Your task to perform on an android device: Go to location settings Image 0: 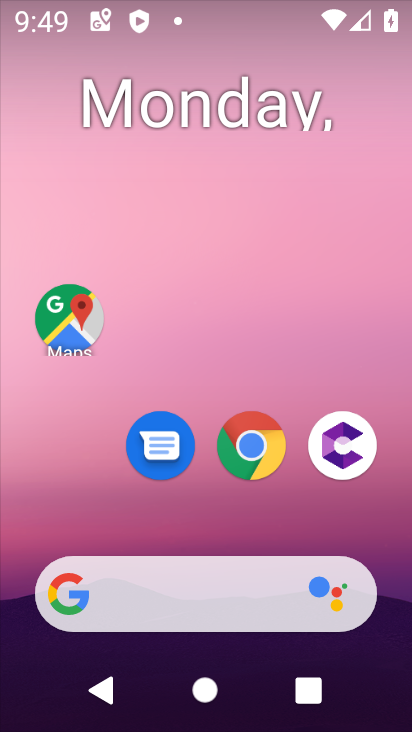
Step 0: press home button
Your task to perform on an android device: Go to location settings Image 1: 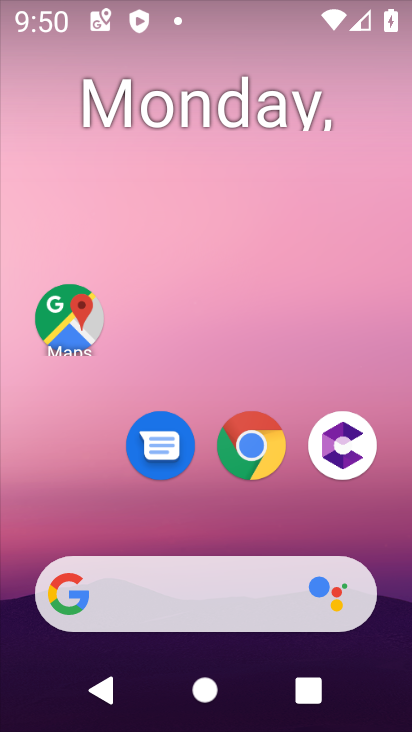
Step 1: drag from (226, 511) to (173, 107)
Your task to perform on an android device: Go to location settings Image 2: 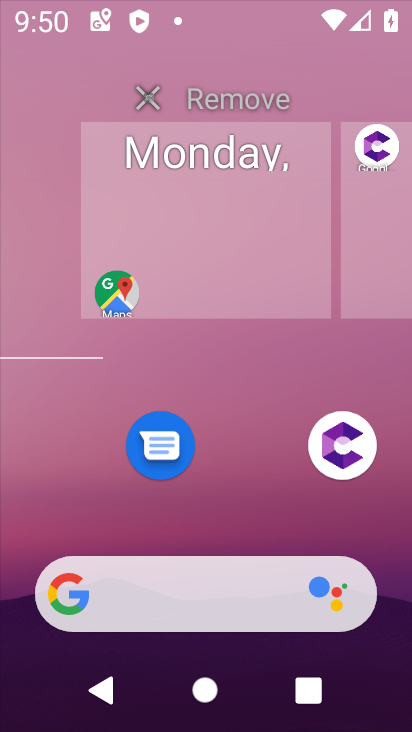
Step 2: click (172, 231)
Your task to perform on an android device: Go to location settings Image 3: 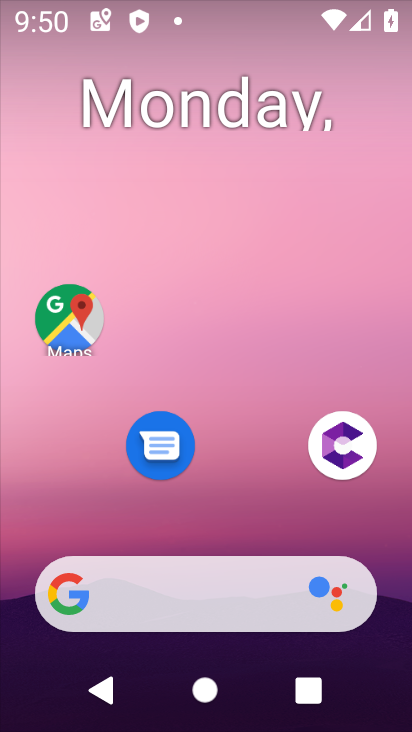
Step 3: drag from (219, 516) to (156, 76)
Your task to perform on an android device: Go to location settings Image 4: 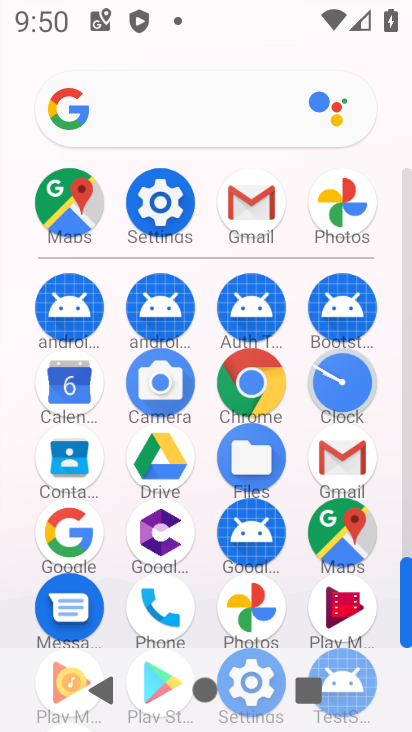
Step 4: click (164, 203)
Your task to perform on an android device: Go to location settings Image 5: 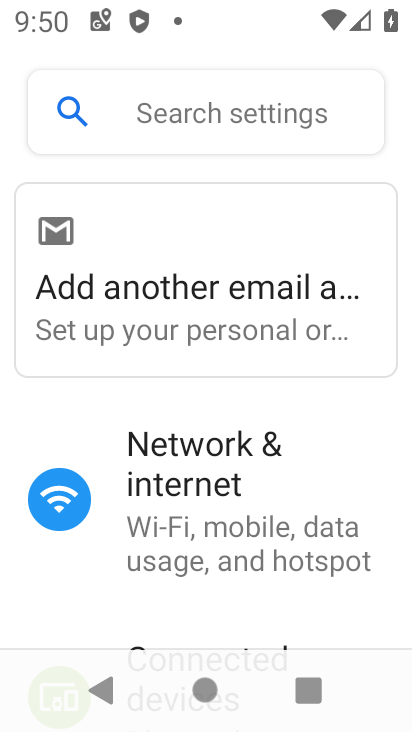
Step 5: drag from (285, 421) to (230, 29)
Your task to perform on an android device: Go to location settings Image 6: 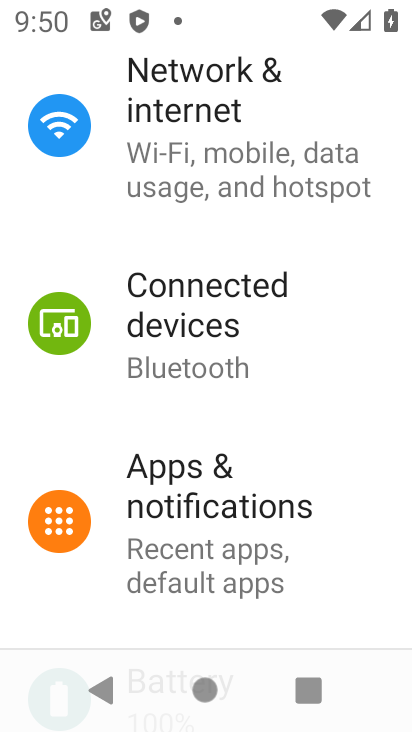
Step 6: drag from (314, 565) to (252, 116)
Your task to perform on an android device: Go to location settings Image 7: 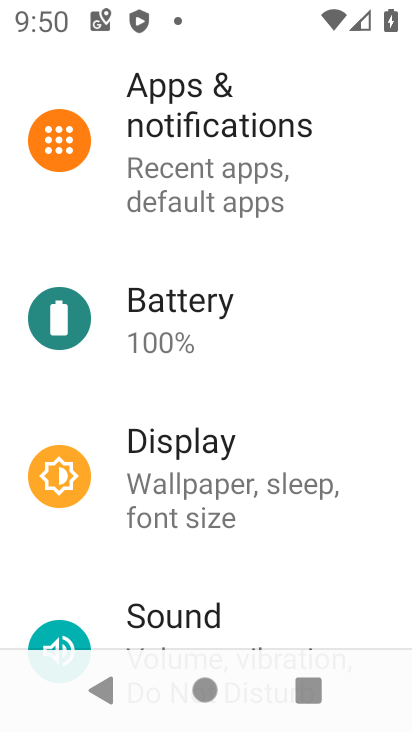
Step 7: drag from (287, 600) to (243, 183)
Your task to perform on an android device: Go to location settings Image 8: 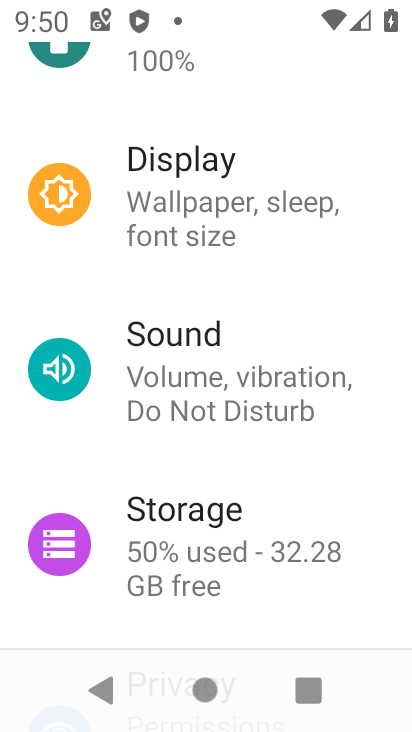
Step 8: drag from (307, 591) to (260, 147)
Your task to perform on an android device: Go to location settings Image 9: 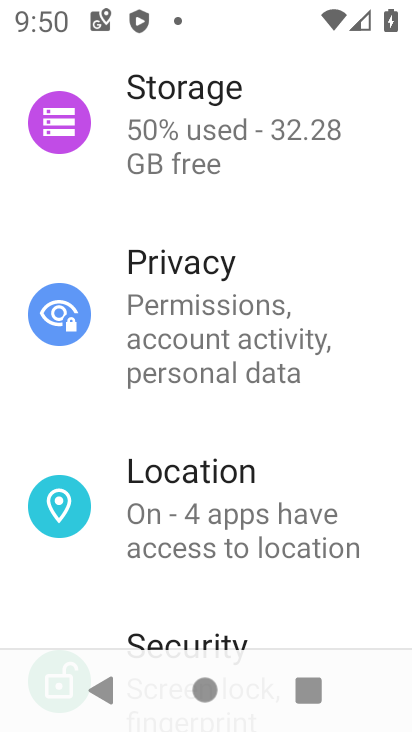
Step 9: click (188, 490)
Your task to perform on an android device: Go to location settings Image 10: 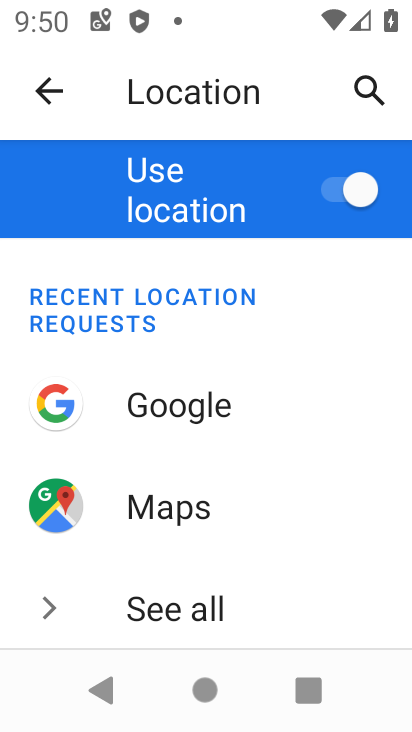
Step 10: task complete